Your task to perform on an android device: What's the weather? Image 0: 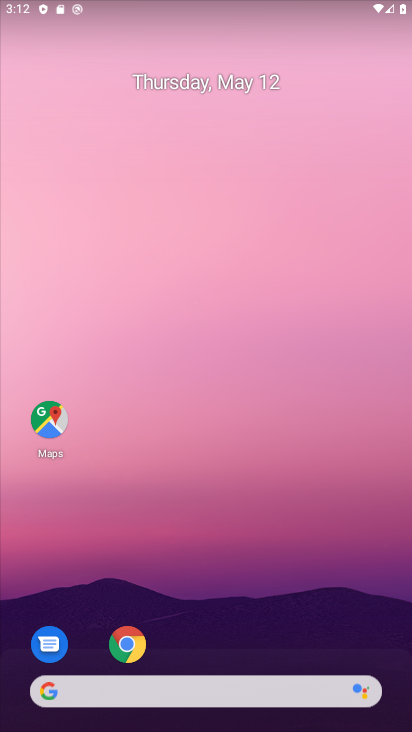
Step 0: click (137, 652)
Your task to perform on an android device: What's the weather? Image 1: 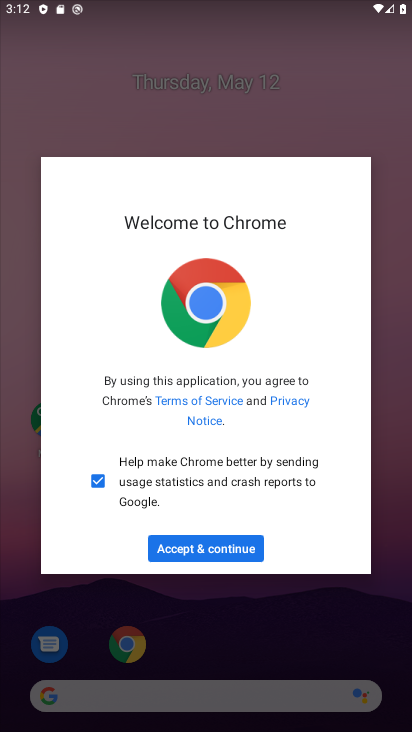
Step 1: click (220, 557)
Your task to perform on an android device: What's the weather? Image 2: 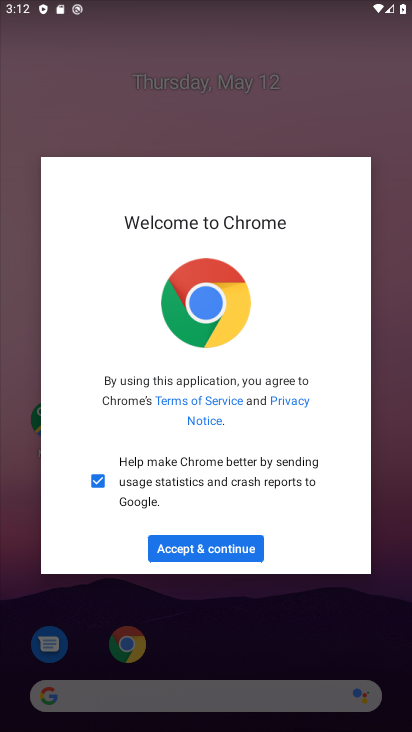
Step 2: click (224, 559)
Your task to perform on an android device: What's the weather? Image 3: 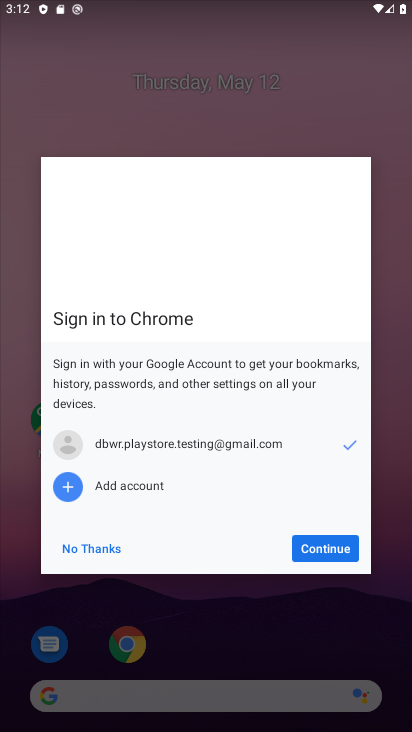
Step 3: click (321, 552)
Your task to perform on an android device: What's the weather? Image 4: 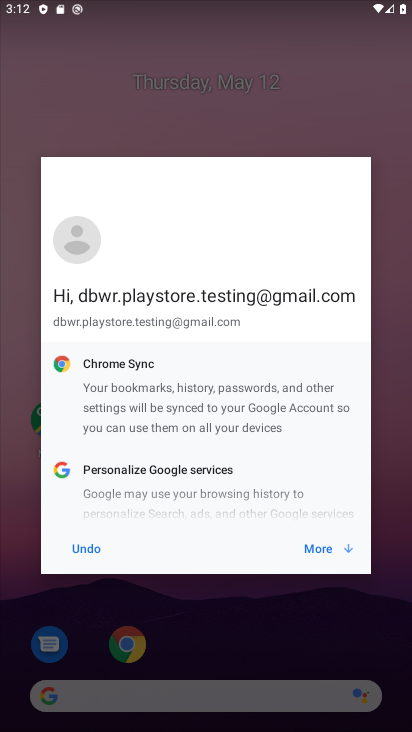
Step 4: click (319, 550)
Your task to perform on an android device: What's the weather? Image 5: 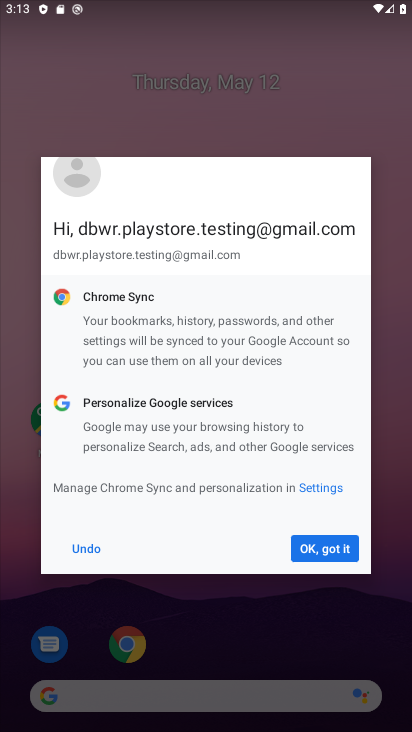
Step 5: click (324, 560)
Your task to perform on an android device: What's the weather? Image 6: 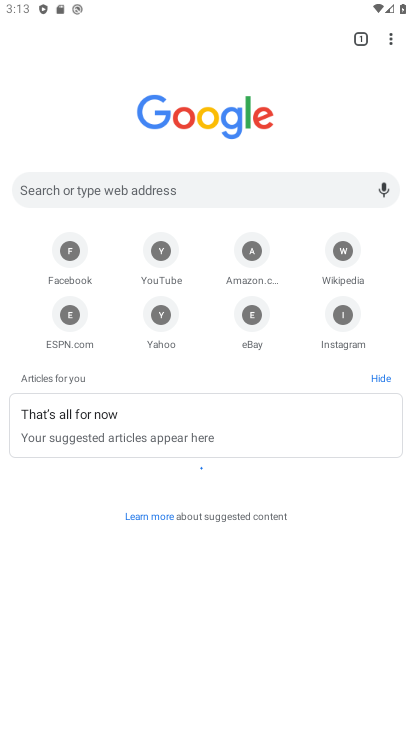
Step 6: click (162, 190)
Your task to perform on an android device: What's the weather? Image 7: 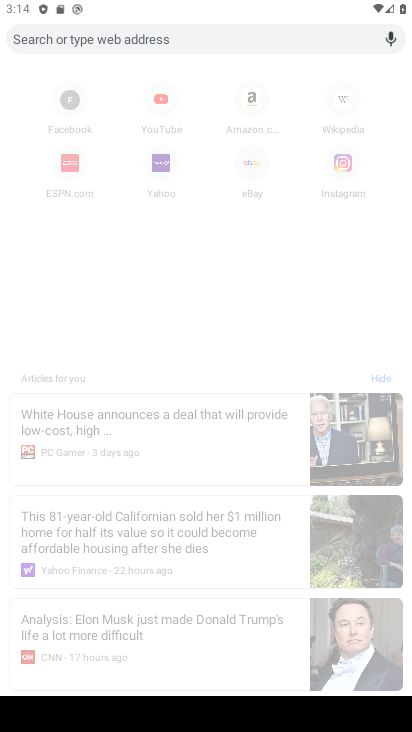
Step 7: type "whats the weather"
Your task to perform on an android device: What's the weather? Image 8: 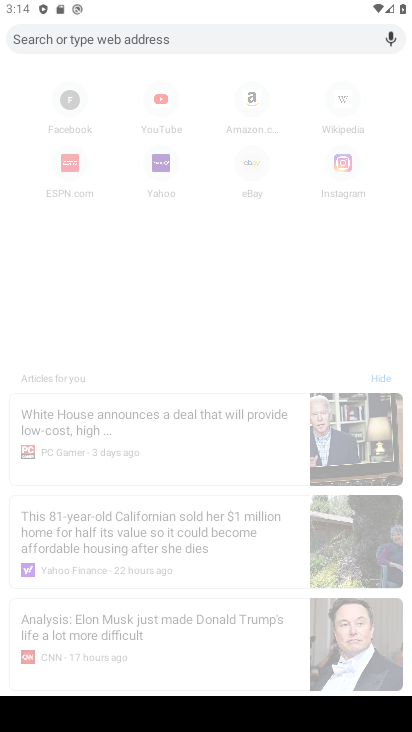
Step 8: click (133, 38)
Your task to perform on an android device: What's the weather? Image 9: 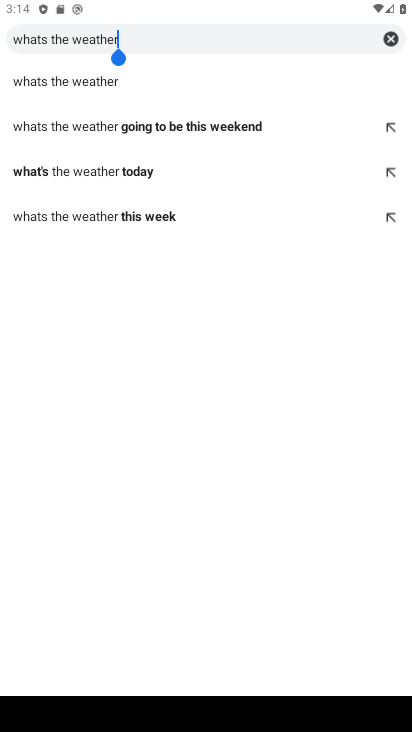
Step 9: click (97, 84)
Your task to perform on an android device: What's the weather? Image 10: 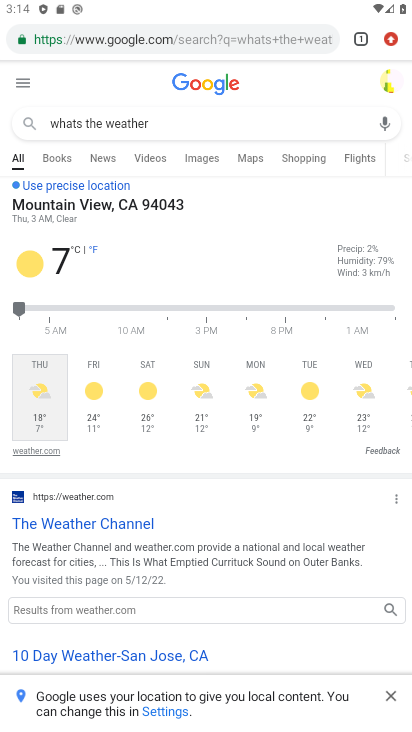
Step 10: task complete